Your task to perform on an android device: Open eBay Image 0: 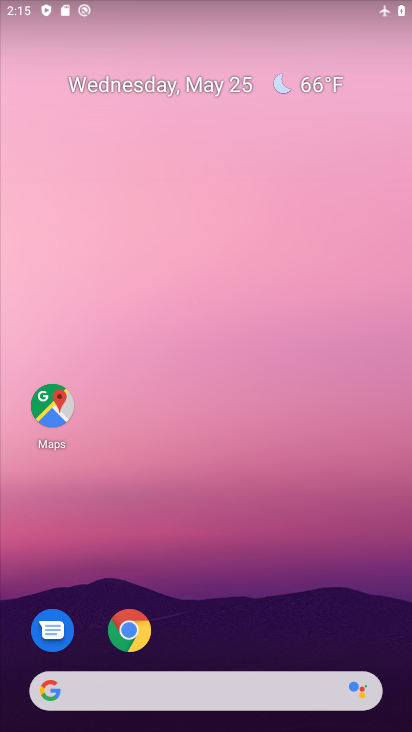
Step 0: click (125, 622)
Your task to perform on an android device: Open eBay Image 1: 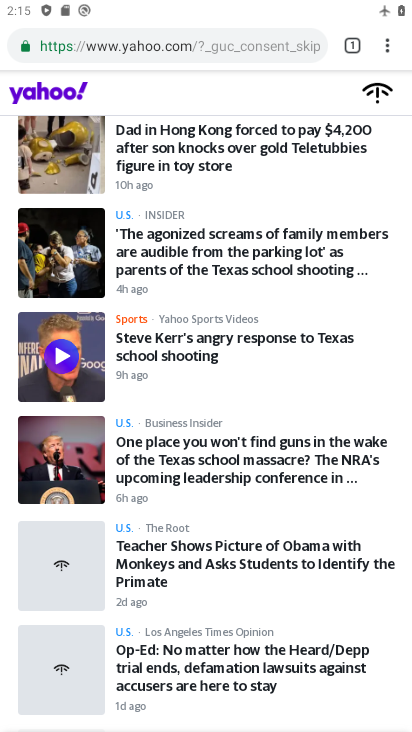
Step 1: click (348, 42)
Your task to perform on an android device: Open eBay Image 2: 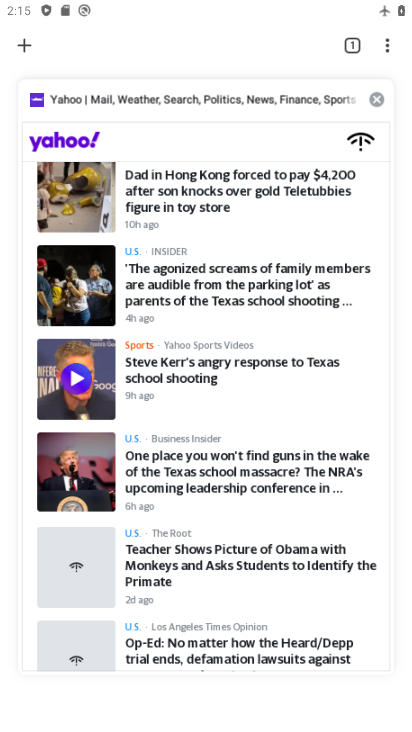
Step 2: click (379, 94)
Your task to perform on an android device: Open eBay Image 3: 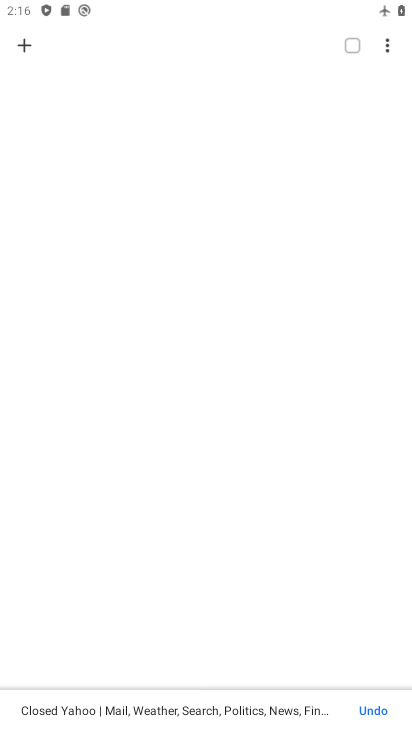
Step 3: click (27, 46)
Your task to perform on an android device: Open eBay Image 4: 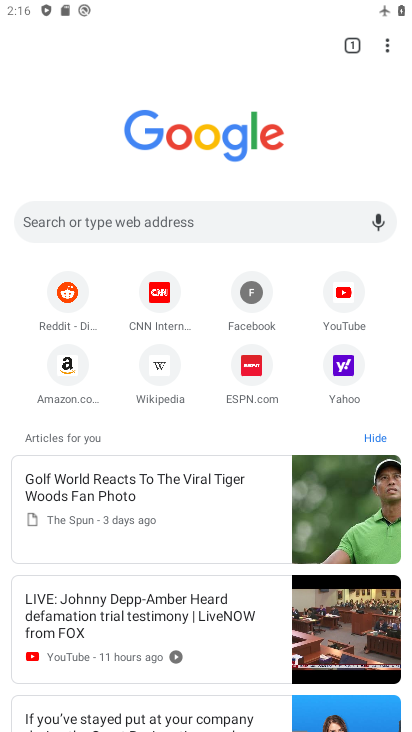
Step 4: click (123, 217)
Your task to perform on an android device: Open eBay Image 5: 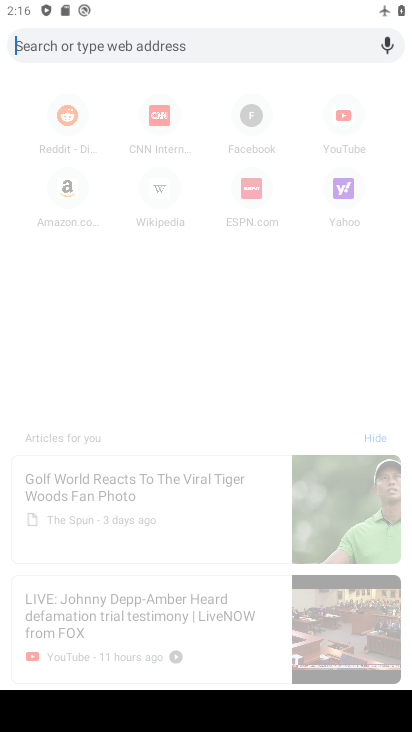
Step 5: type "ebay"
Your task to perform on an android device: Open eBay Image 6: 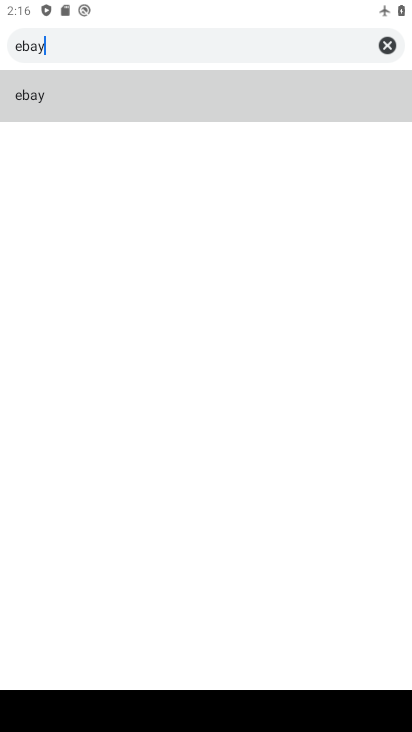
Step 6: type ""
Your task to perform on an android device: Open eBay Image 7: 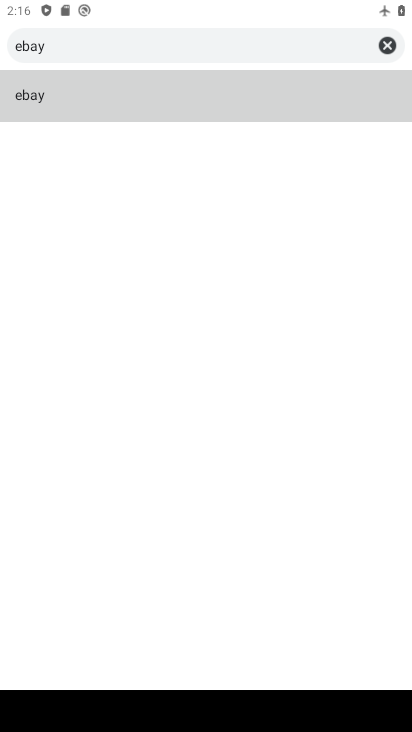
Step 7: task complete